Your task to perform on an android device: Open the calendar app, open the side menu, and click the "Day" option Image 0: 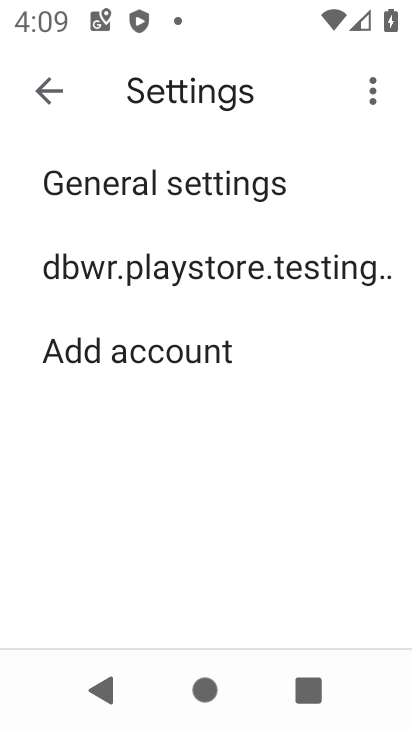
Step 0: press home button
Your task to perform on an android device: Open the calendar app, open the side menu, and click the "Day" option Image 1: 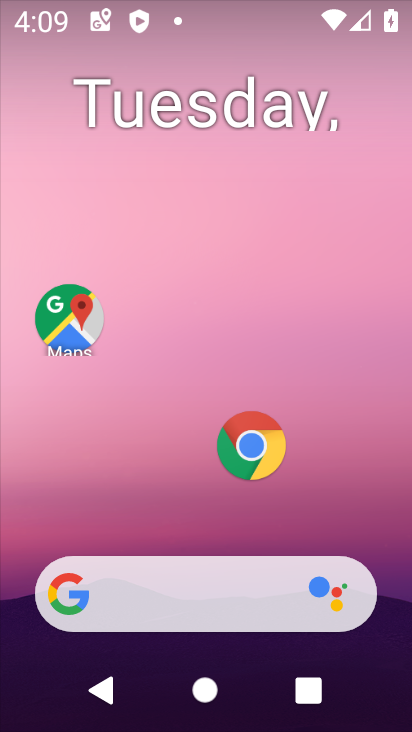
Step 1: drag from (176, 510) to (179, 4)
Your task to perform on an android device: Open the calendar app, open the side menu, and click the "Day" option Image 2: 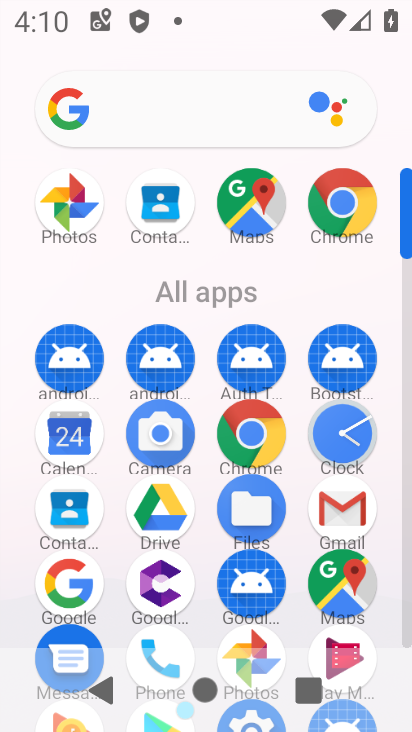
Step 2: click (73, 439)
Your task to perform on an android device: Open the calendar app, open the side menu, and click the "Day" option Image 3: 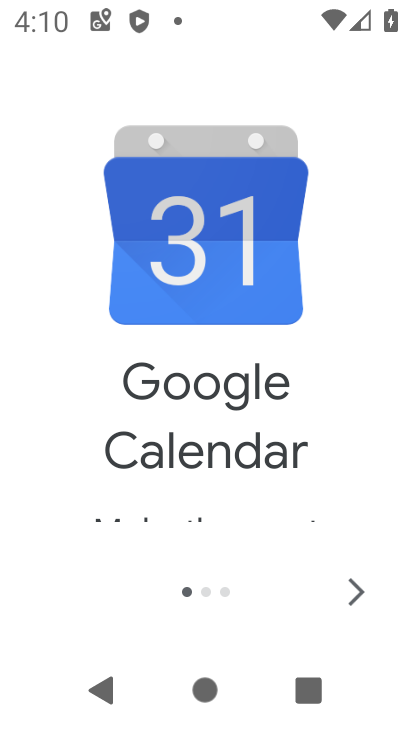
Step 3: click (356, 588)
Your task to perform on an android device: Open the calendar app, open the side menu, and click the "Day" option Image 4: 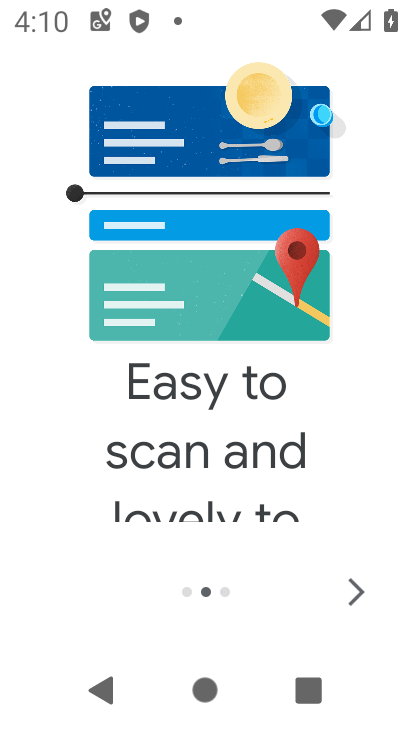
Step 4: click (352, 595)
Your task to perform on an android device: Open the calendar app, open the side menu, and click the "Day" option Image 5: 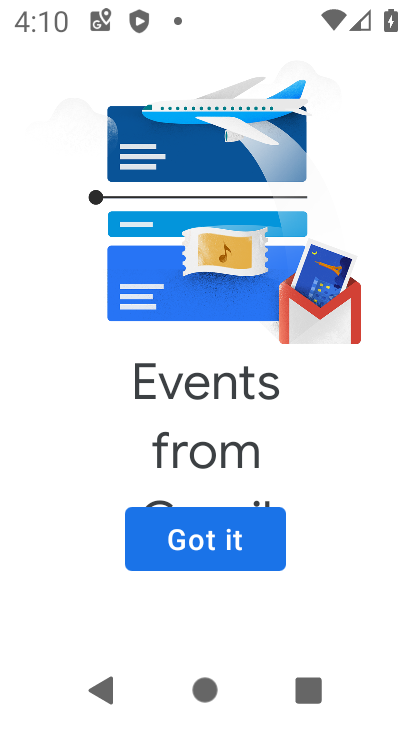
Step 5: click (243, 538)
Your task to perform on an android device: Open the calendar app, open the side menu, and click the "Day" option Image 6: 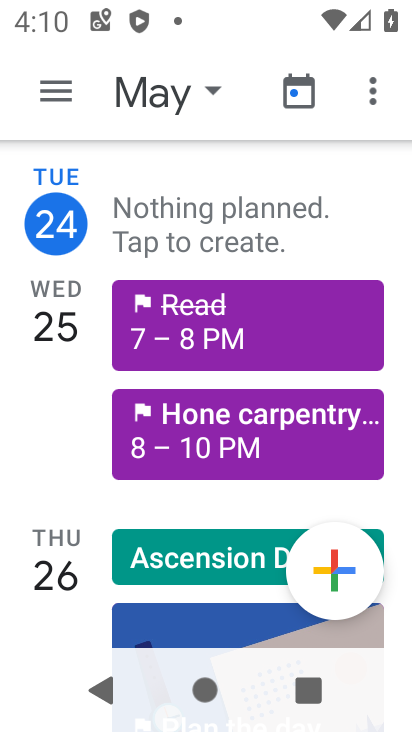
Step 6: click (245, 540)
Your task to perform on an android device: Open the calendar app, open the side menu, and click the "Day" option Image 7: 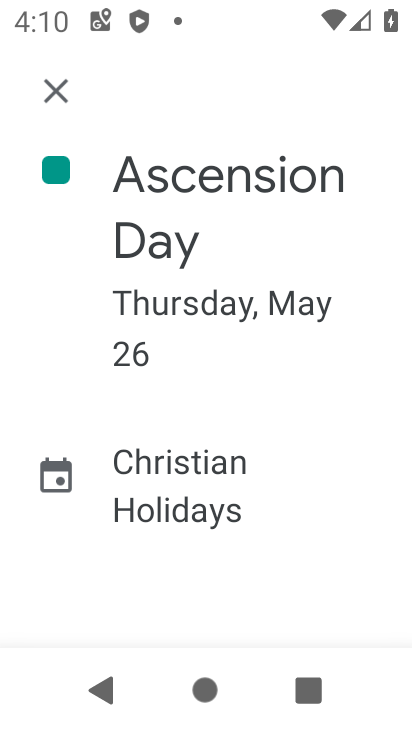
Step 7: drag from (213, 499) to (194, 168)
Your task to perform on an android device: Open the calendar app, open the side menu, and click the "Day" option Image 8: 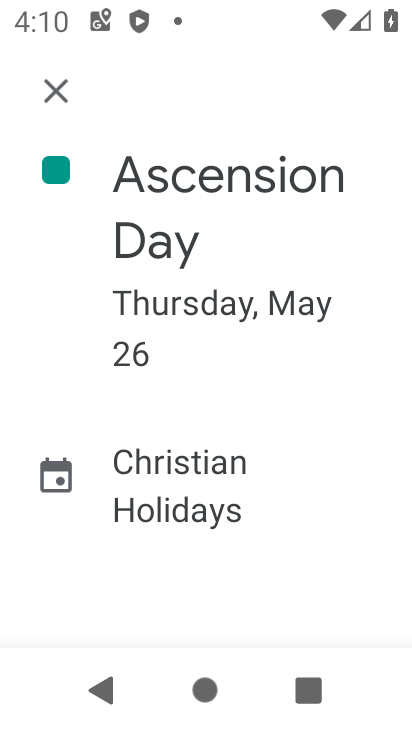
Step 8: drag from (146, 396) to (150, 157)
Your task to perform on an android device: Open the calendar app, open the side menu, and click the "Day" option Image 9: 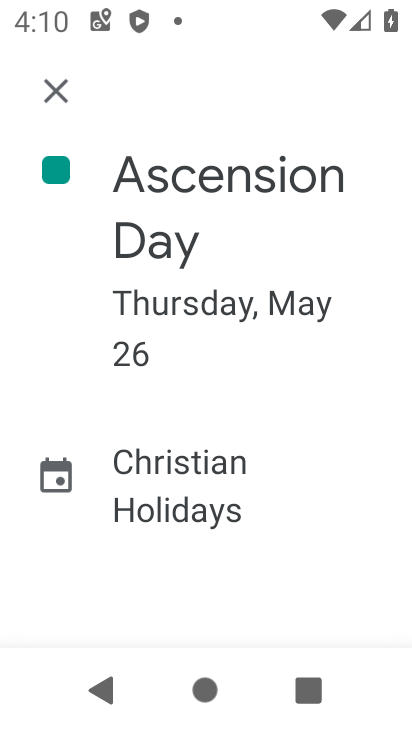
Step 9: click (35, 82)
Your task to perform on an android device: Open the calendar app, open the side menu, and click the "Day" option Image 10: 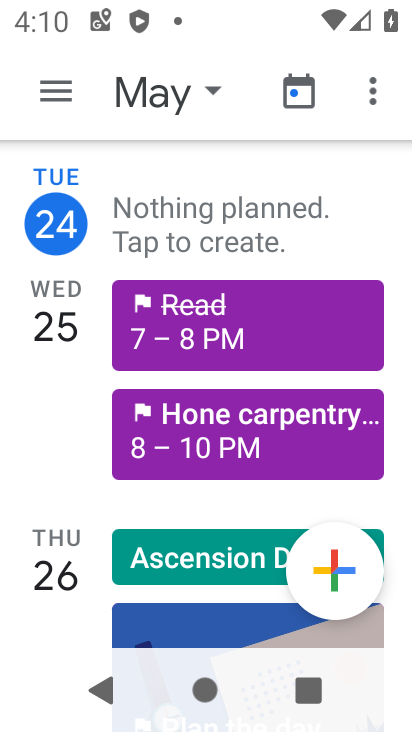
Step 10: click (39, 86)
Your task to perform on an android device: Open the calendar app, open the side menu, and click the "Day" option Image 11: 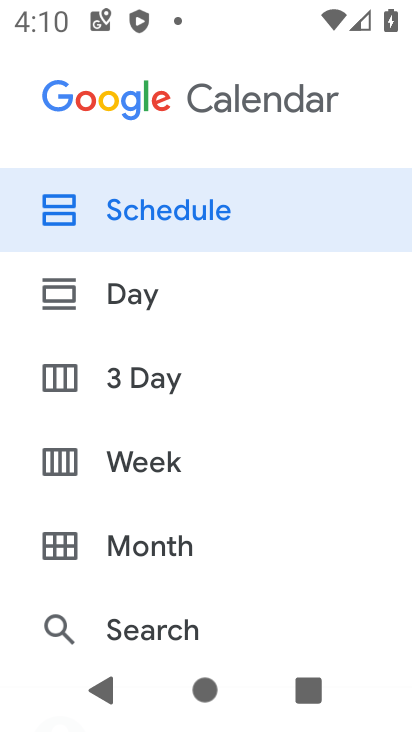
Step 11: click (119, 278)
Your task to perform on an android device: Open the calendar app, open the side menu, and click the "Day" option Image 12: 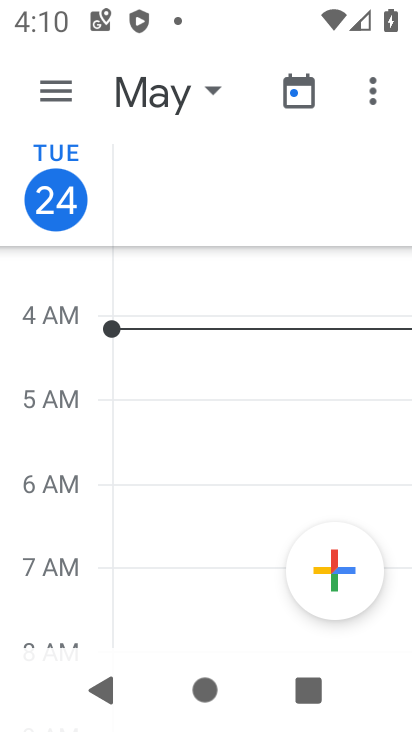
Step 12: task complete